Your task to perform on an android device: all mails in gmail Image 0: 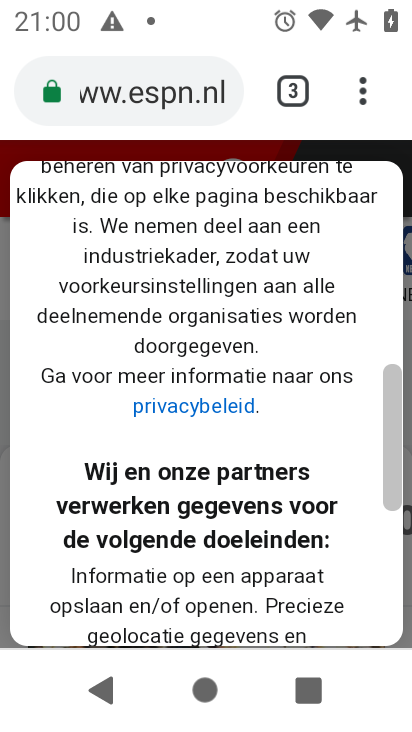
Step 0: press home button
Your task to perform on an android device: all mails in gmail Image 1: 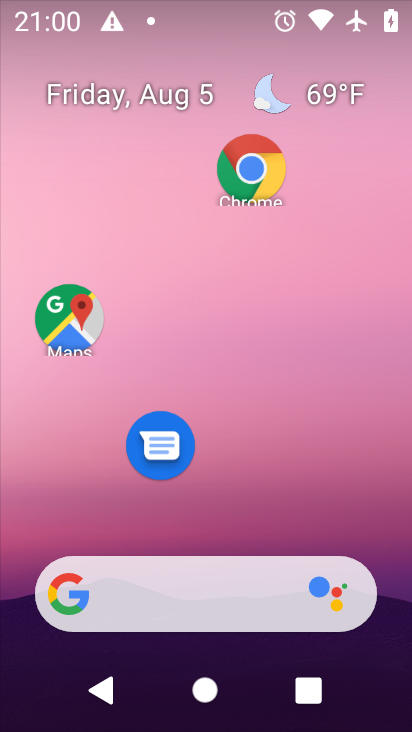
Step 1: drag from (214, 512) to (192, 93)
Your task to perform on an android device: all mails in gmail Image 2: 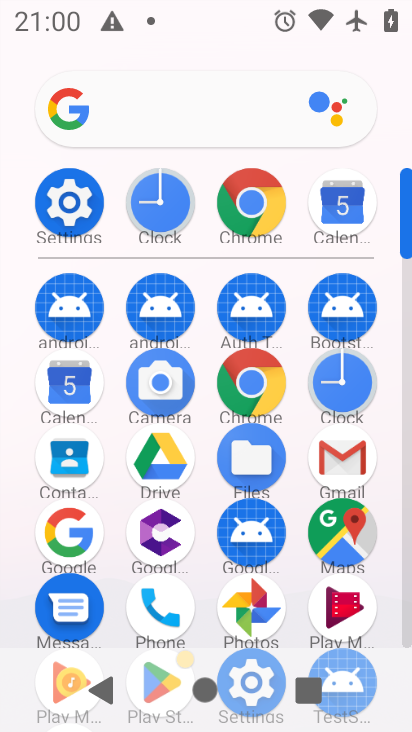
Step 2: click (325, 451)
Your task to perform on an android device: all mails in gmail Image 3: 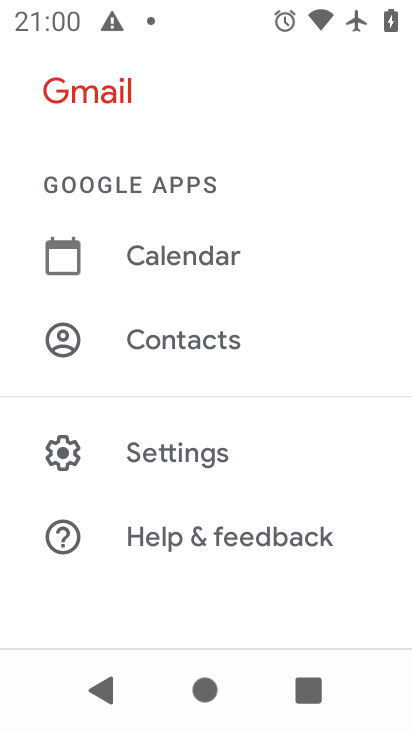
Step 3: drag from (220, 476) to (230, 116)
Your task to perform on an android device: all mails in gmail Image 4: 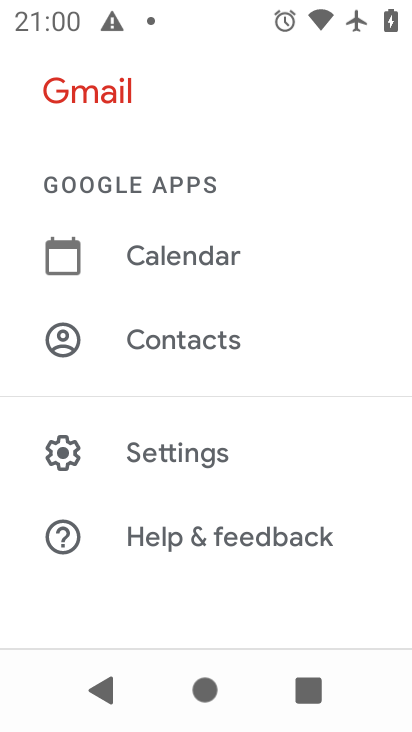
Step 4: drag from (254, 337) to (264, 522)
Your task to perform on an android device: all mails in gmail Image 5: 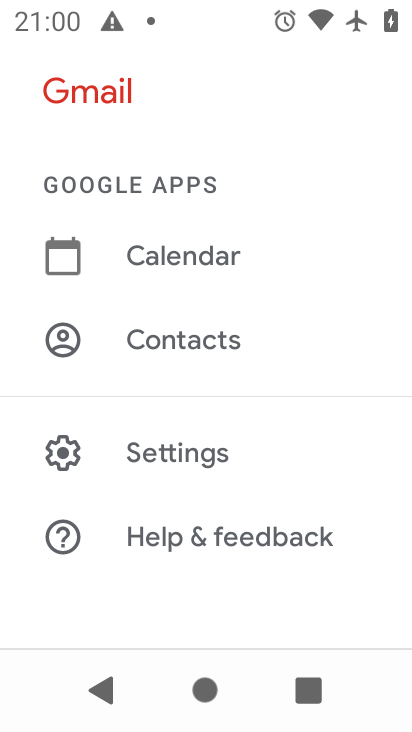
Step 5: drag from (224, 278) to (229, 518)
Your task to perform on an android device: all mails in gmail Image 6: 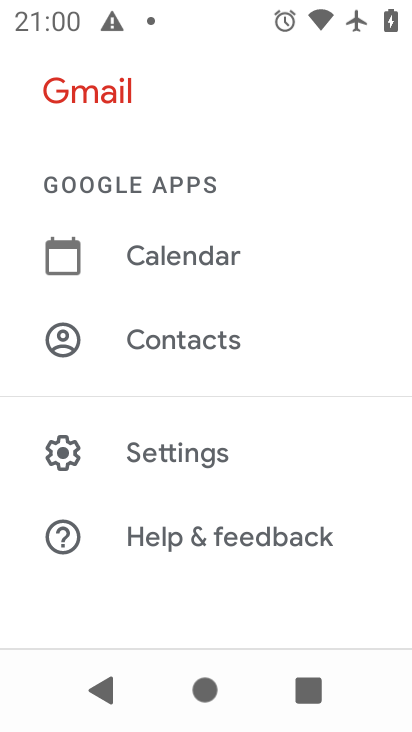
Step 6: drag from (227, 240) to (256, 461)
Your task to perform on an android device: all mails in gmail Image 7: 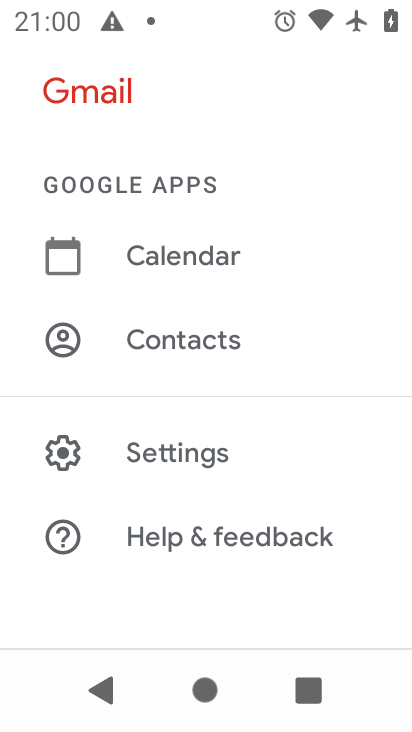
Step 7: press back button
Your task to perform on an android device: all mails in gmail Image 8: 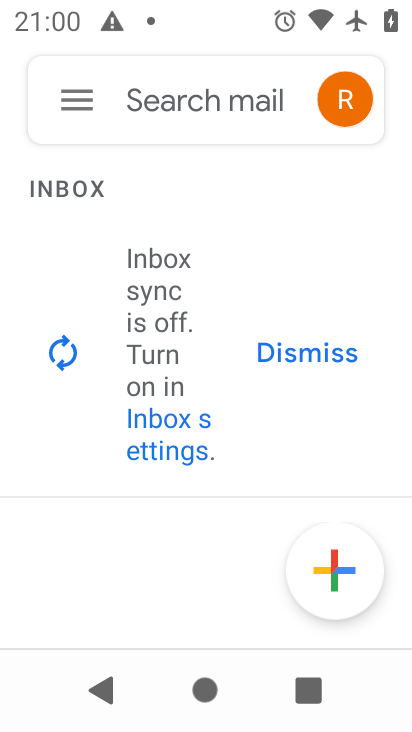
Step 8: click (67, 119)
Your task to perform on an android device: all mails in gmail Image 9: 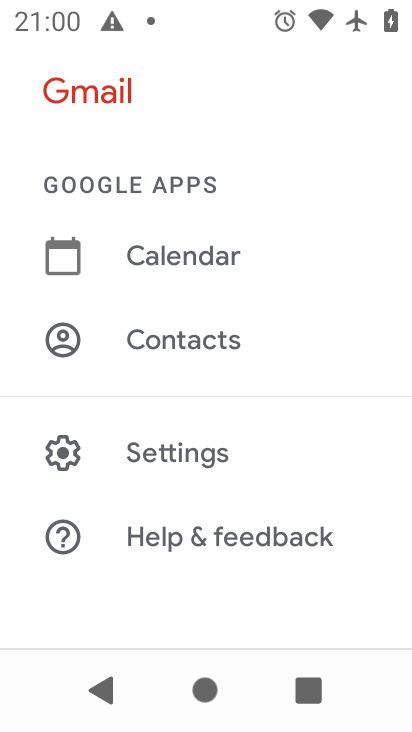
Step 9: task complete